Your task to perform on an android device: turn on javascript in the chrome app Image 0: 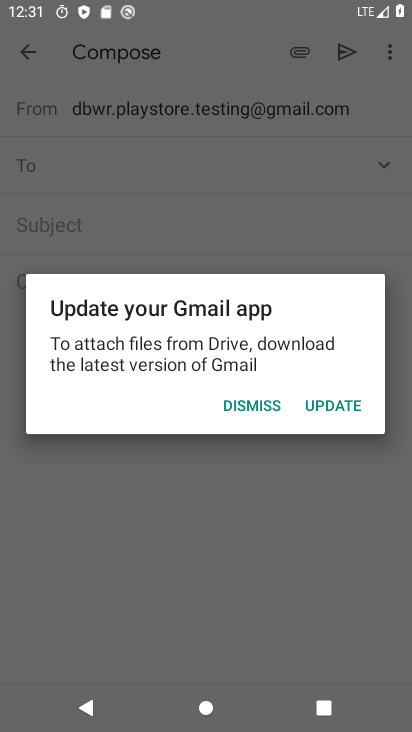
Step 0: press home button
Your task to perform on an android device: turn on javascript in the chrome app Image 1: 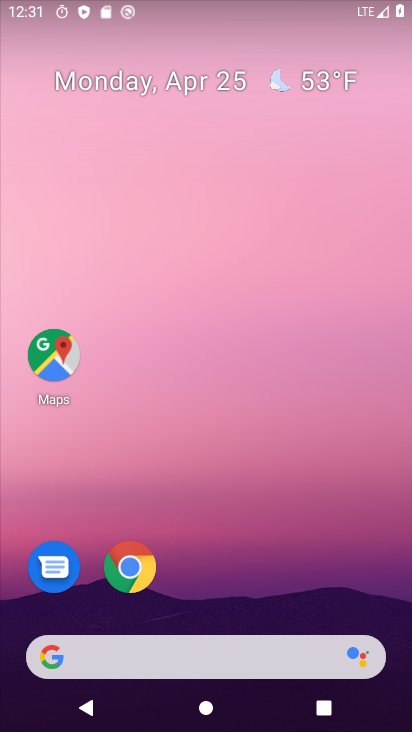
Step 1: click (138, 565)
Your task to perform on an android device: turn on javascript in the chrome app Image 2: 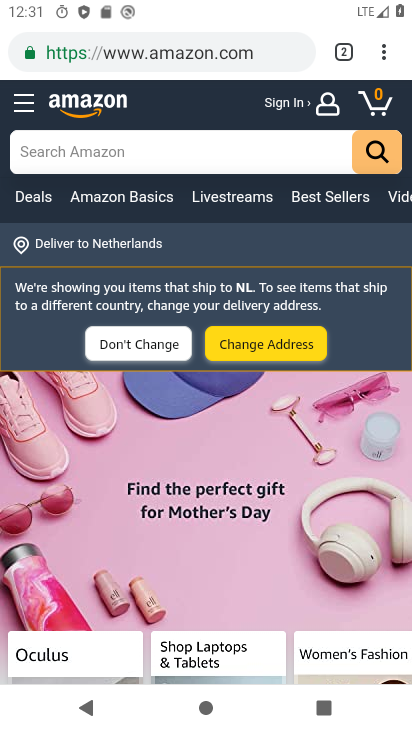
Step 2: click (380, 49)
Your task to perform on an android device: turn on javascript in the chrome app Image 3: 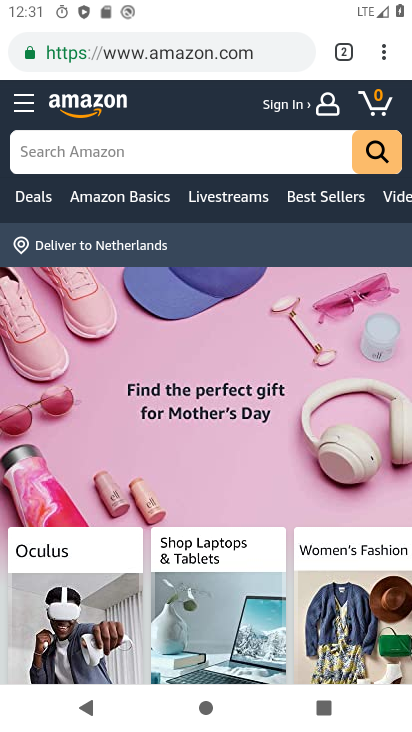
Step 3: click (380, 49)
Your task to perform on an android device: turn on javascript in the chrome app Image 4: 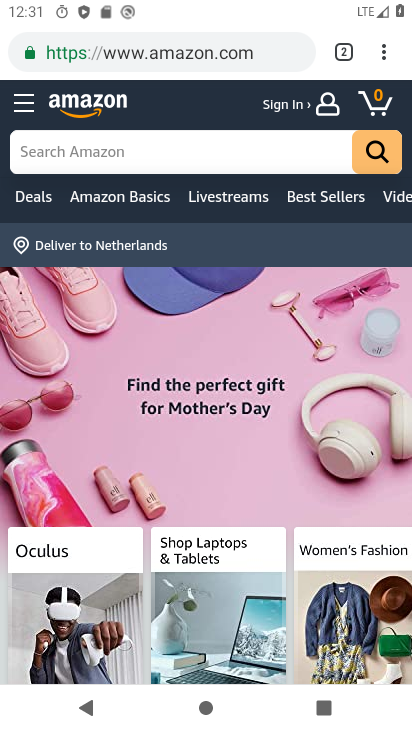
Step 4: click (387, 49)
Your task to perform on an android device: turn on javascript in the chrome app Image 5: 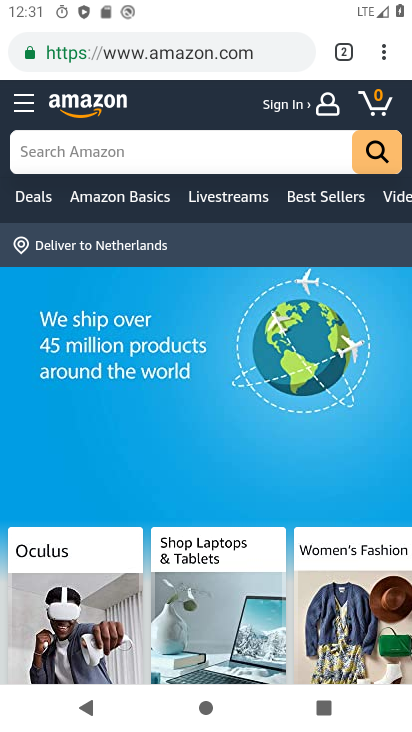
Step 5: drag from (387, 46) to (289, 602)
Your task to perform on an android device: turn on javascript in the chrome app Image 6: 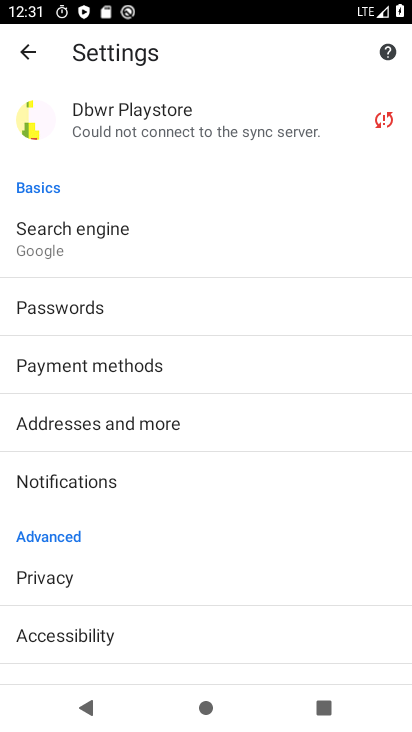
Step 6: drag from (280, 577) to (294, 376)
Your task to perform on an android device: turn on javascript in the chrome app Image 7: 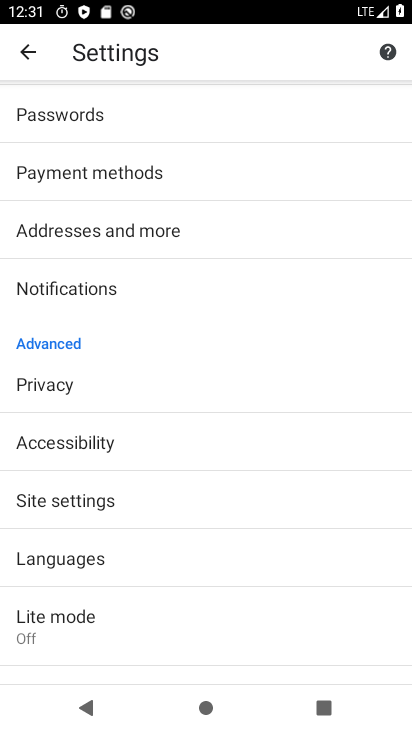
Step 7: click (221, 488)
Your task to perform on an android device: turn on javascript in the chrome app Image 8: 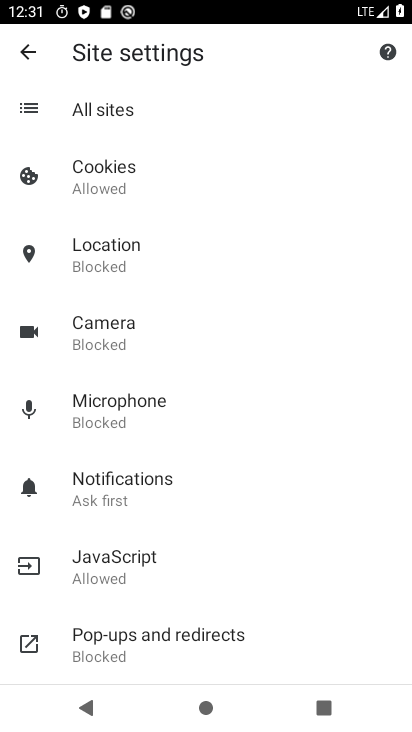
Step 8: click (201, 552)
Your task to perform on an android device: turn on javascript in the chrome app Image 9: 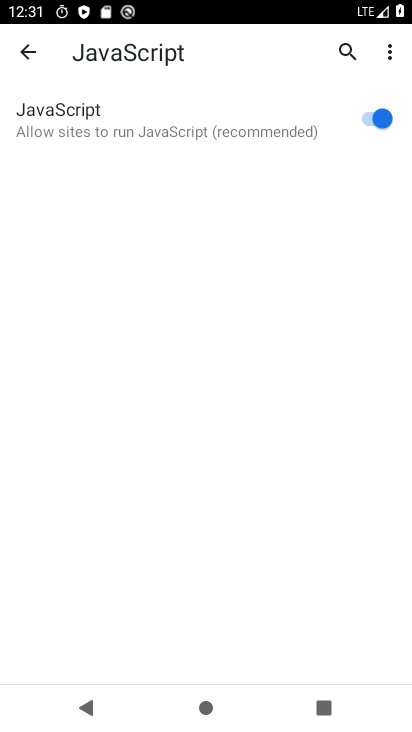
Step 9: task complete